Your task to perform on an android device: Turn on the flashlight Image 0: 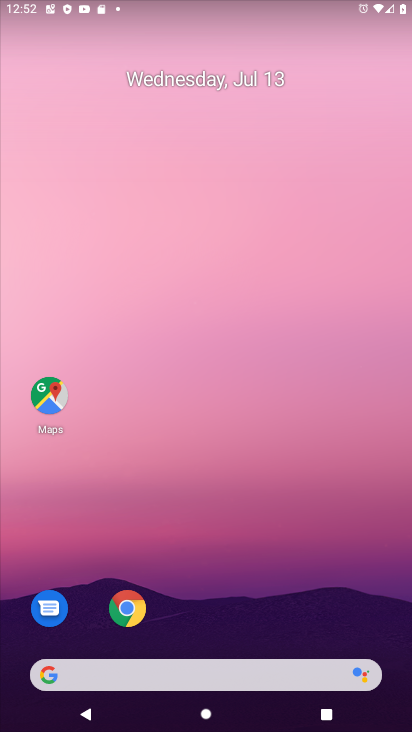
Step 0: drag from (194, 616) to (271, 47)
Your task to perform on an android device: Turn on the flashlight Image 1: 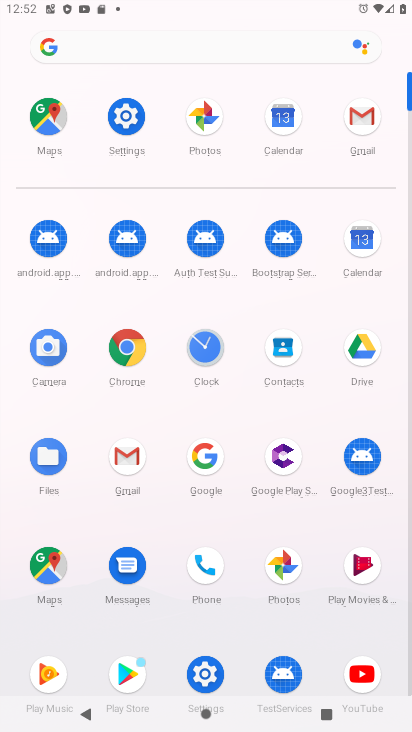
Step 1: click (126, 114)
Your task to perform on an android device: Turn on the flashlight Image 2: 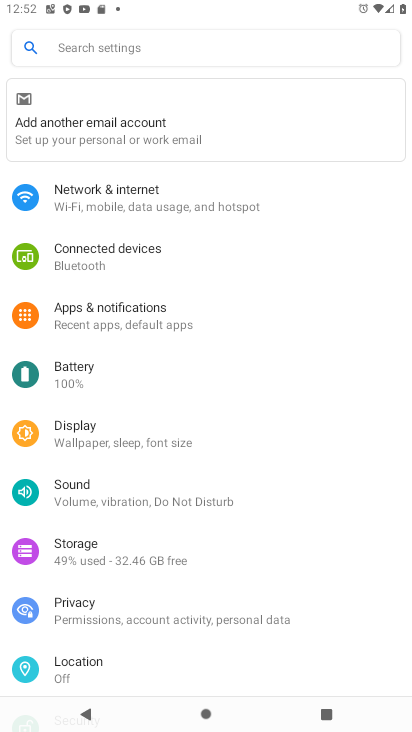
Step 2: click (109, 40)
Your task to perform on an android device: Turn on the flashlight Image 3: 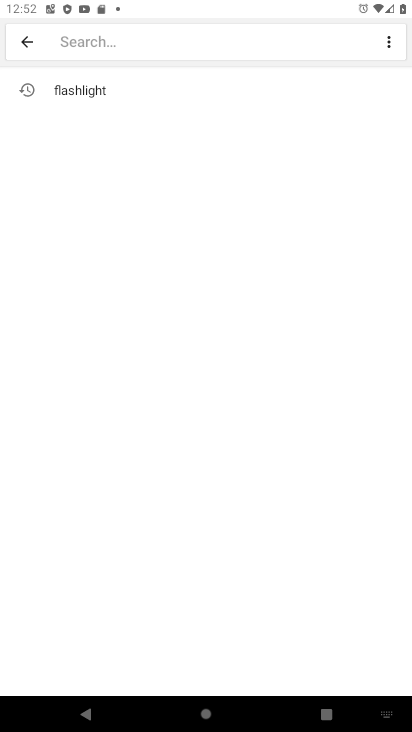
Step 3: type "flashlight"
Your task to perform on an android device: Turn on the flashlight Image 4: 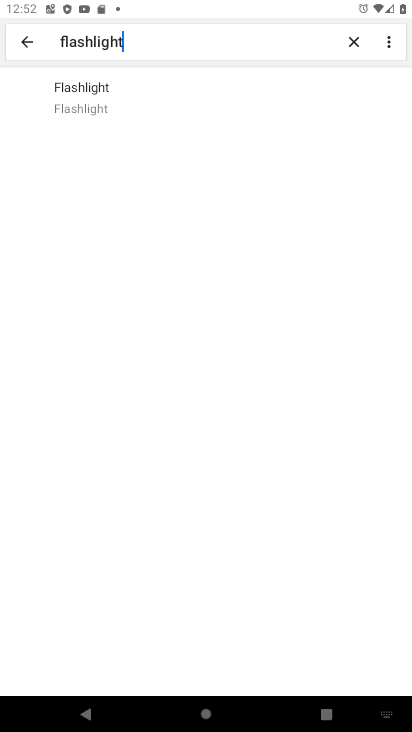
Step 4: click (93, 106)
Your task to perform on an android device: Turn on the flashlight Image 5: 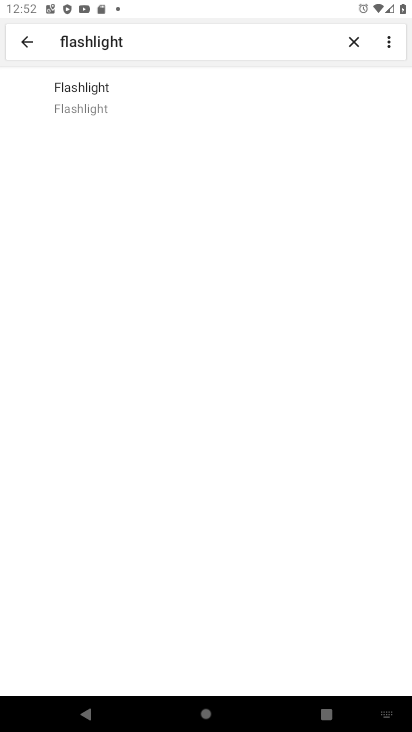
Step 5: click (101, 95)
Your task to perform on an android device: Turn on the flashlight Image 6: 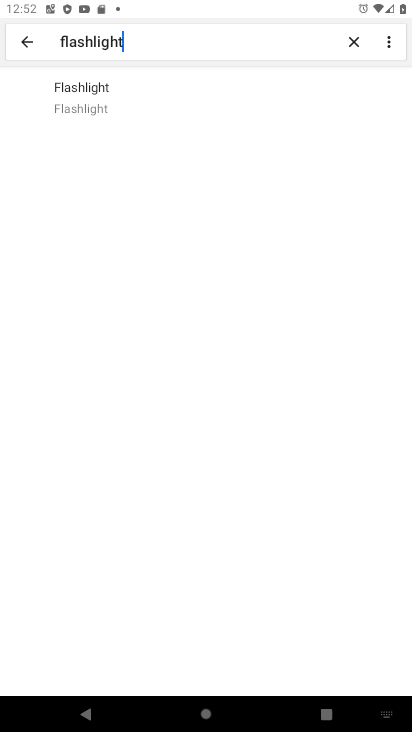
Step 6: click (101, 95)
Your task to perform on an android device: Turn on the flashlight Image 7: 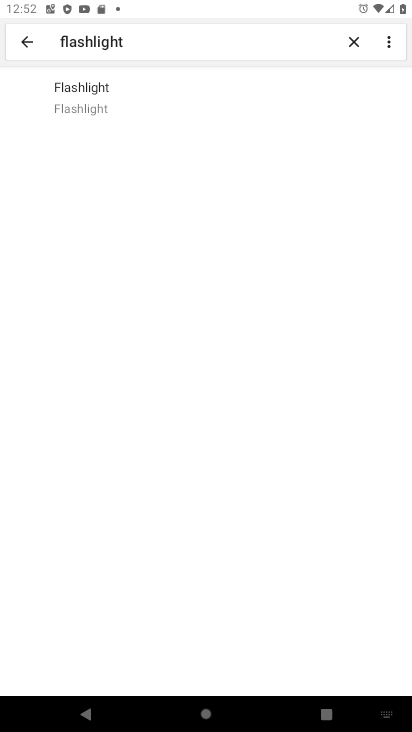
Step 7: click (133, 97)
Your task to perform on an android device: Turn on the flashlight Image 8: 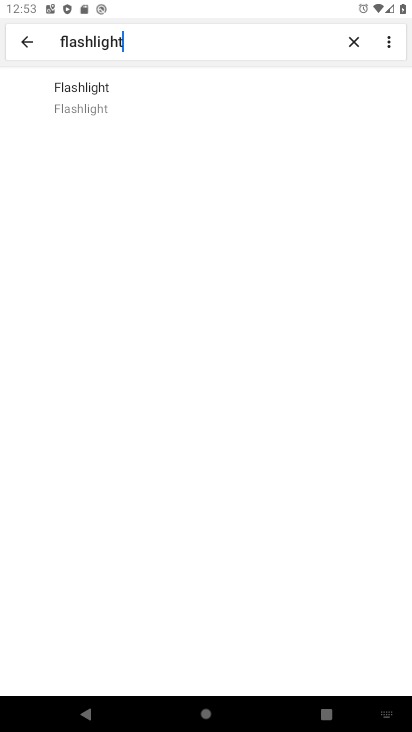
Step 8: task complete